Your task to perform on an android device: Go to Maps Image 0: 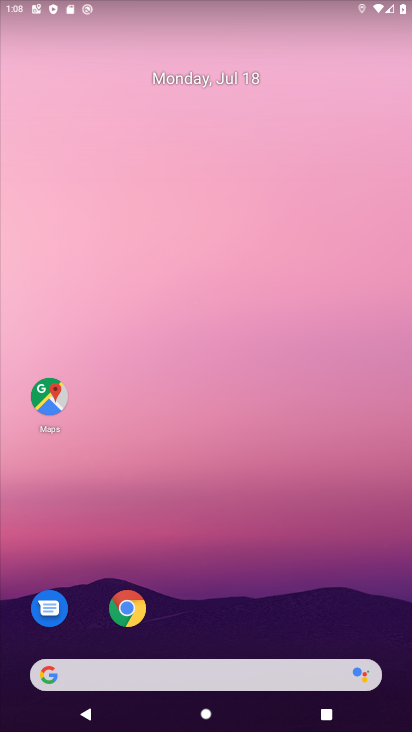
Step 0: drag from (250, 643) to (217, 191)
Your task to perform on an android device: Go to Maps Image 1: 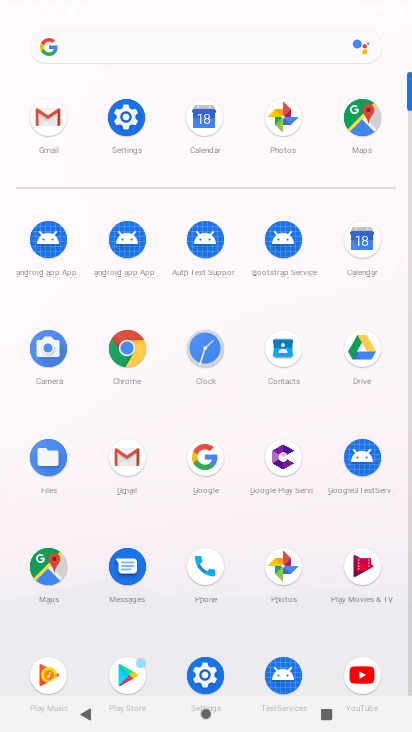
Step 1: click (370, 121)
Your task to perform on an android device: Go to Maps Image 2: 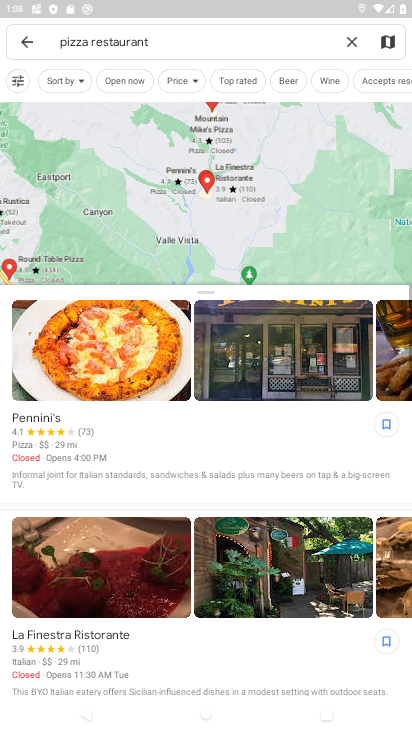
Step 2: task complete